Your task to perform on an android device: turn on translation in the chrome app Image 0: 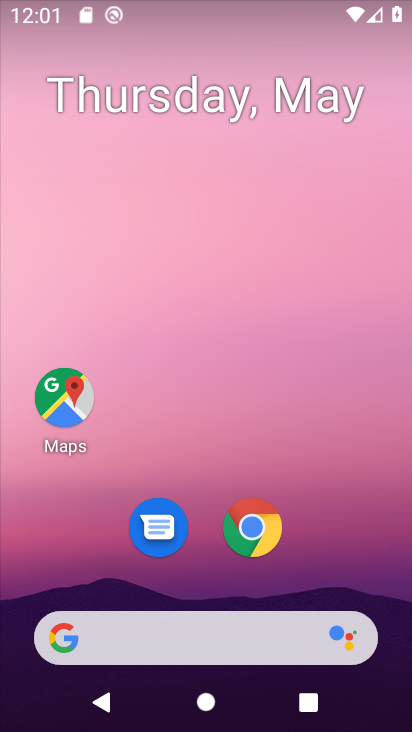
Step 0: click (256, 530)
Your task to perform on an android device: turn on translation in the chrome app Image 1: 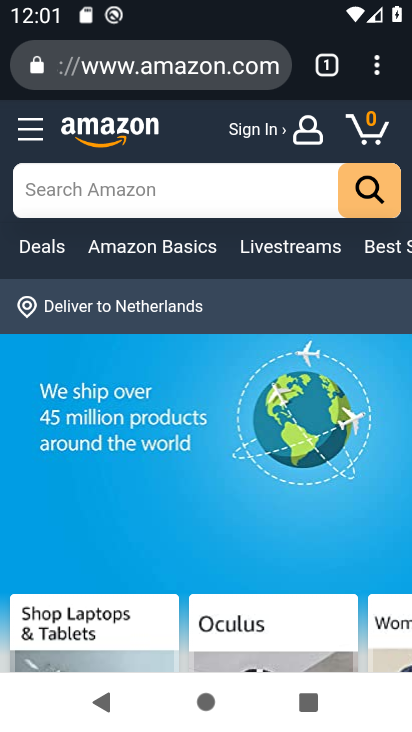
Step 1: drag from (375, 71) to (179, 577)
Your task to perform on an android device: turn on translation in the chrome app Image 2: 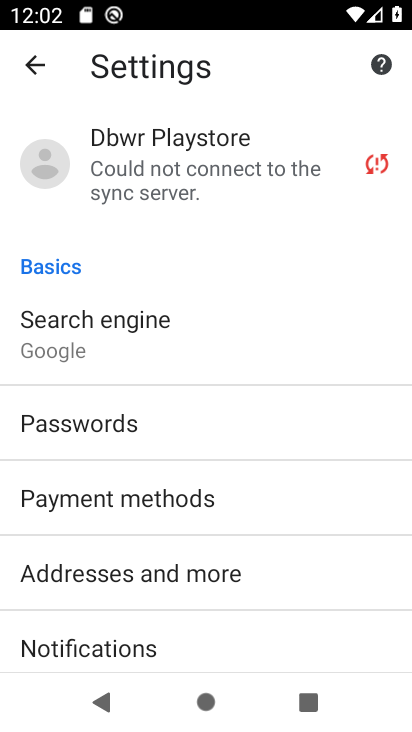
Step 2: drag from (105, 617) to (207, 108)
Your task to perform on an android device: turn on translation in the chrome app Image 3: 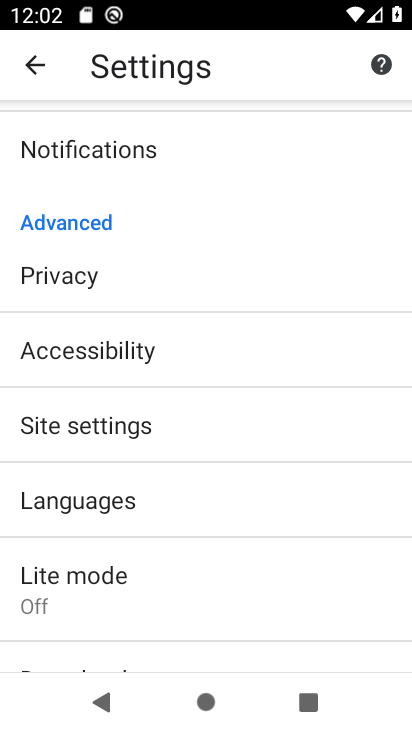
Step 3: click (96, 513)
Your task to perform on an android device: turn on translation in the chrome app Image 4: 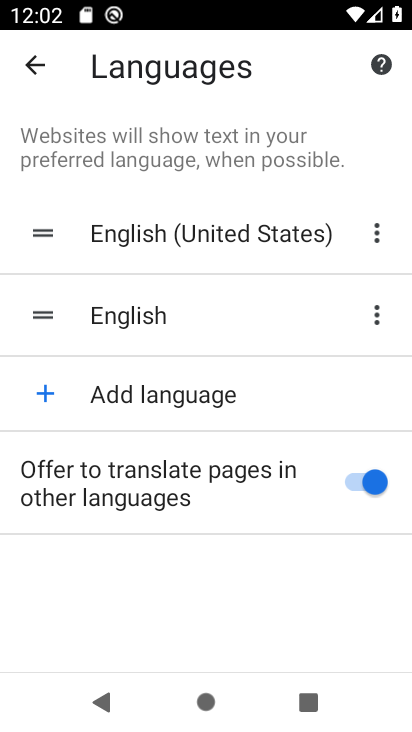
Step 4: task complete